Your task to perform on an android device: Go to sound settings Image 0: 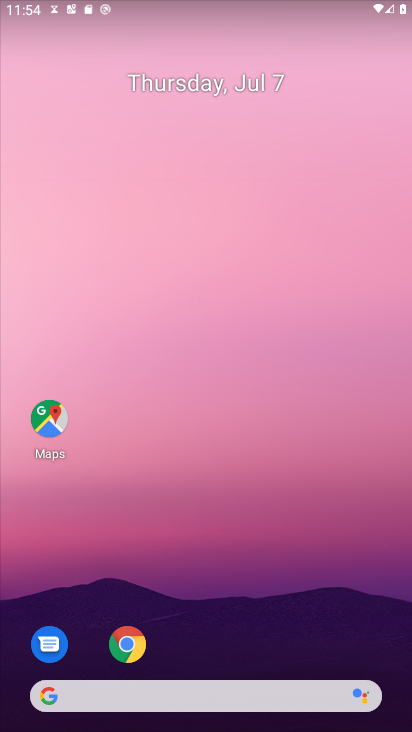
Step 0: press home button
Your task to perform on an android device: Go to sound settings Image 1: 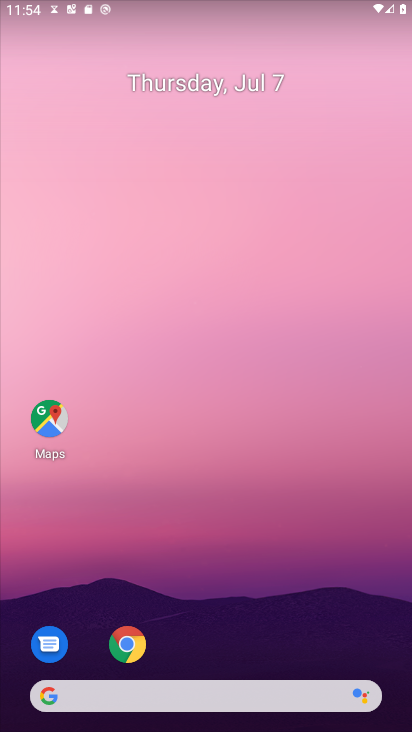
Step 1: drag from (331, 596) to (285, 51)
Your task to perform on an android device: Go to sound settings Image 2: 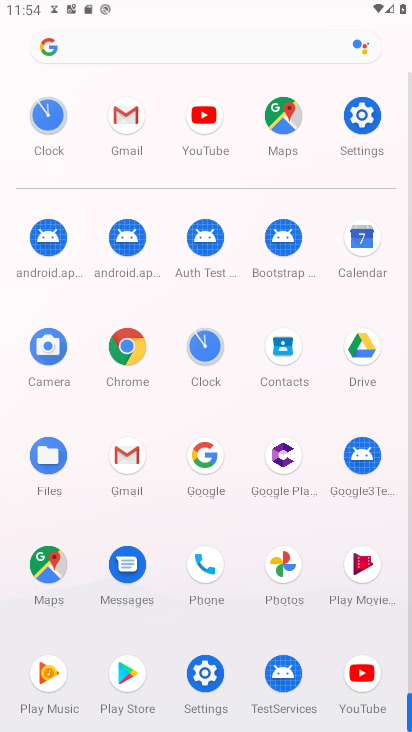
Step 2: click (356, 134)
Your task to perform on an android device: Go to sound settings Image 3: 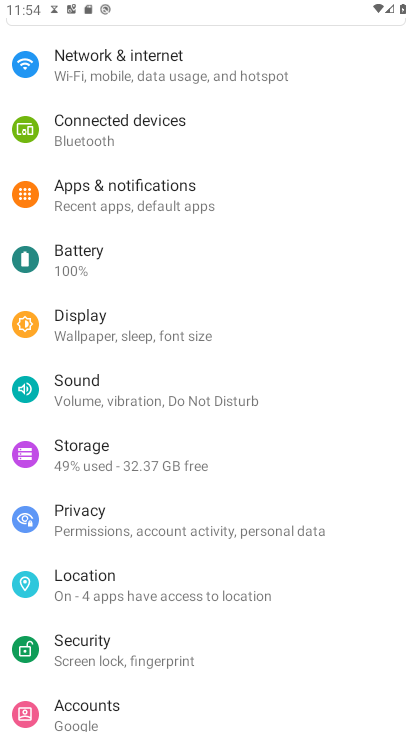
Step 3: click (86, 394)
Your task to perform on an android device: Go to sound settings Image 4: 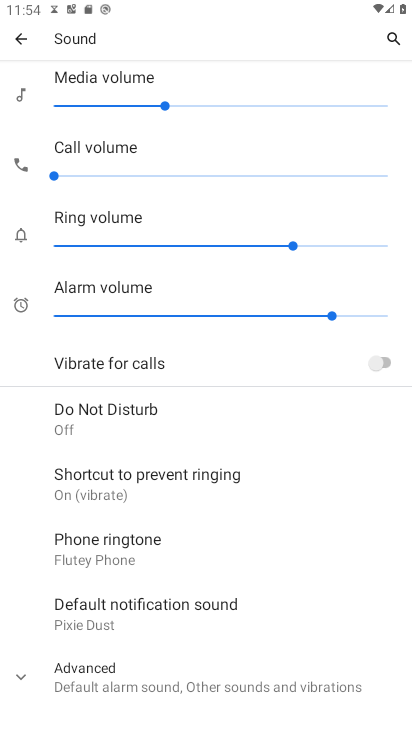
Step 4: task complete